Your task to perform on an android device: toggle translation in the chrome app Image 0: 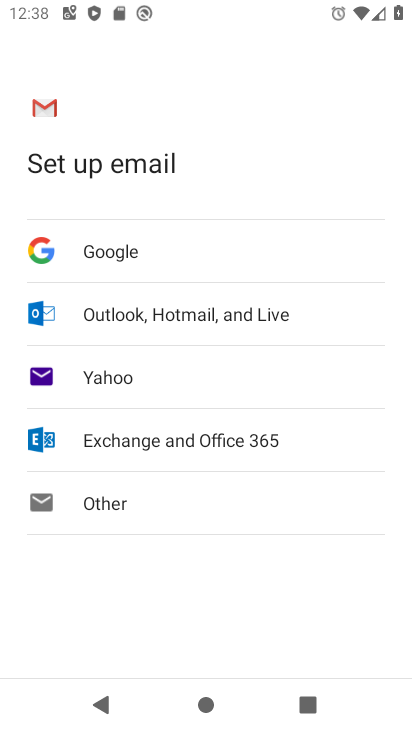
Step 0: press home button
Your task to perform on an android device: toggle translation in the chrome app Image 1: 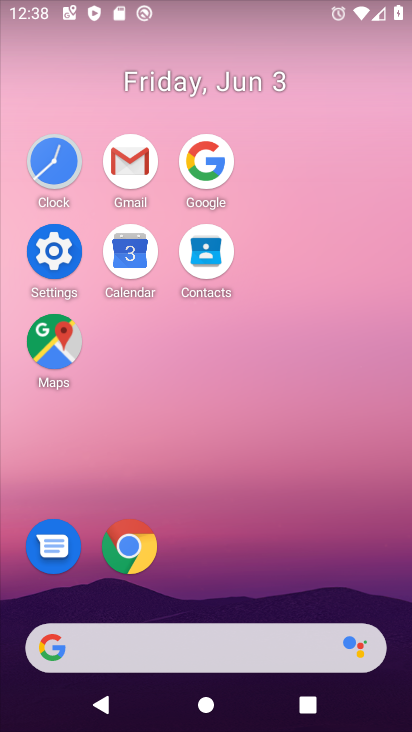
Step 1: click (154, 554)
Your task to perform on an android device: toggle translation in the chrome app Image 2: 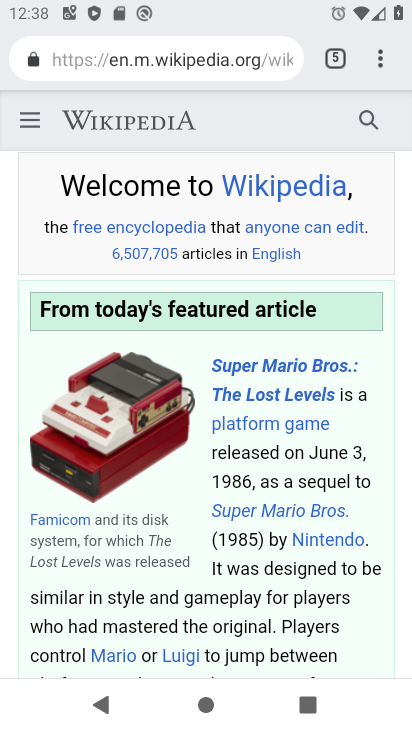
Step 2: click (393, 75)
Your task to perform on an android device: toggle translation in the chrome app Image 3: 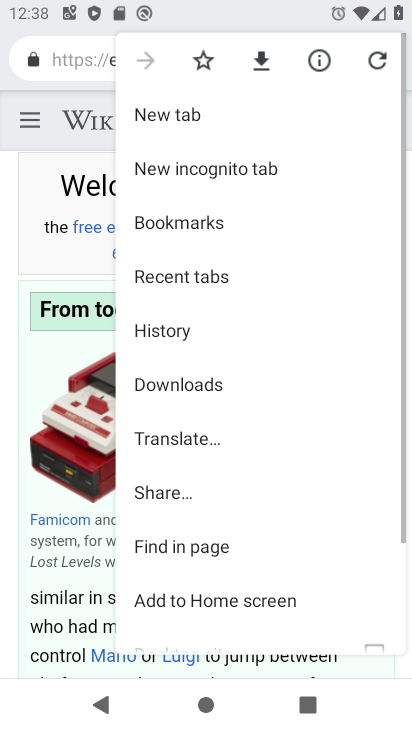
Step 3: drag from (244, 478) to (312, 149)
Your task to perform on an android device: toggle translation in the chrome app Image 4: 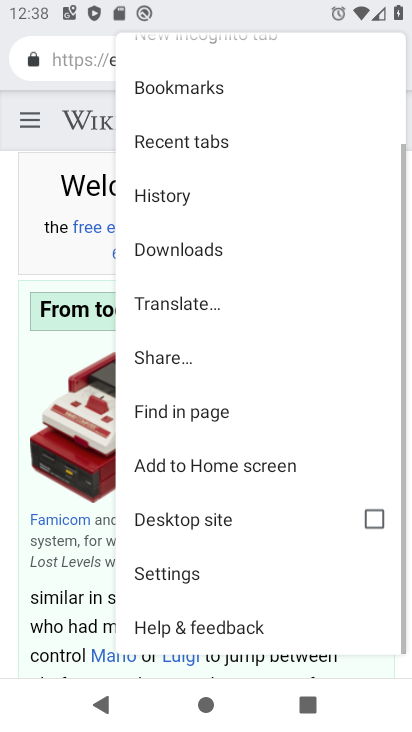
Step 4: click (249, 566)
Your task to perform on an android device: toggle translation in the chrome app Image 5: 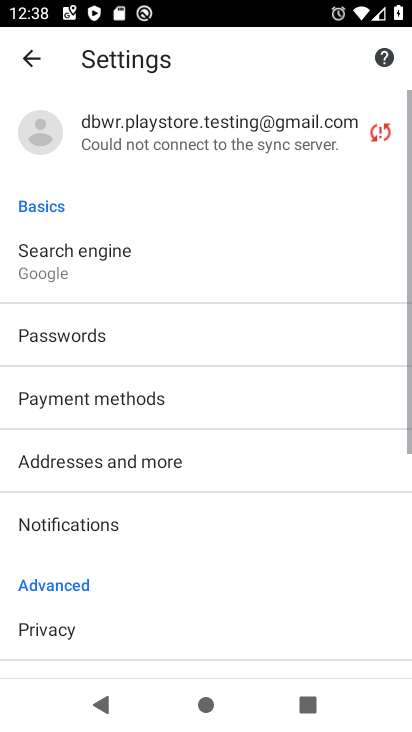
Step 5: drag from (272, 295) to (301, 130)
Your task to perform on an android device: toggle translation in the chrome app Image 6: 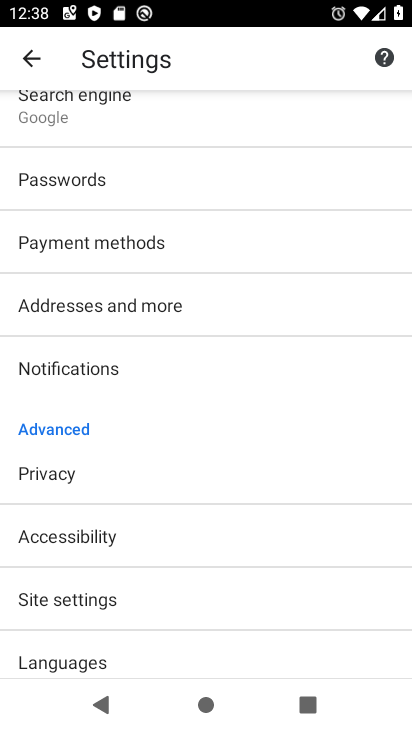
Step 6: drag from (202, 500) to (263, 205)
Your task to perform on an android device: toggle translation in the chrome app Image 7: 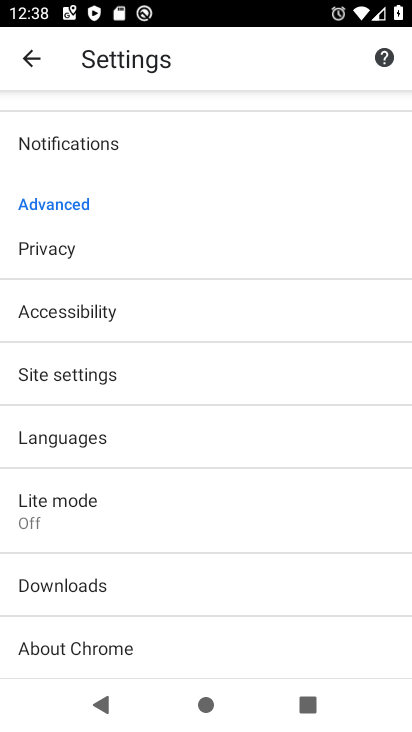
Step 7: click (175, 427)
Your task to perform on an android device: toggle translation in the chrome app Image 8: 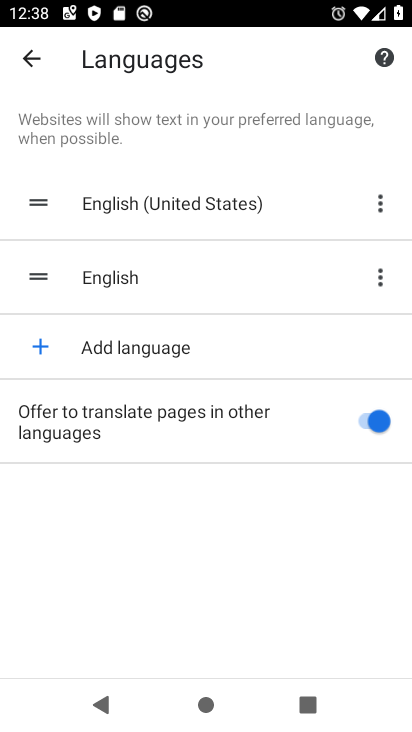
Step 8: click (383, 414)
Your task to perform on an android device: toggle translation in the chrome app Image 9: 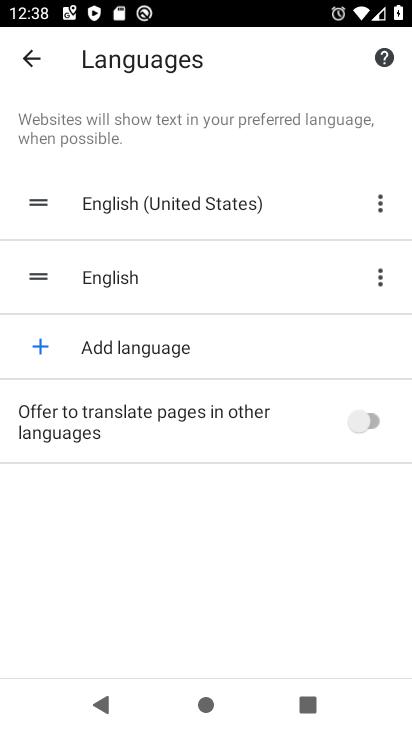
Step 9: task complete